Your task to perform on an android device: check storage Image 0: 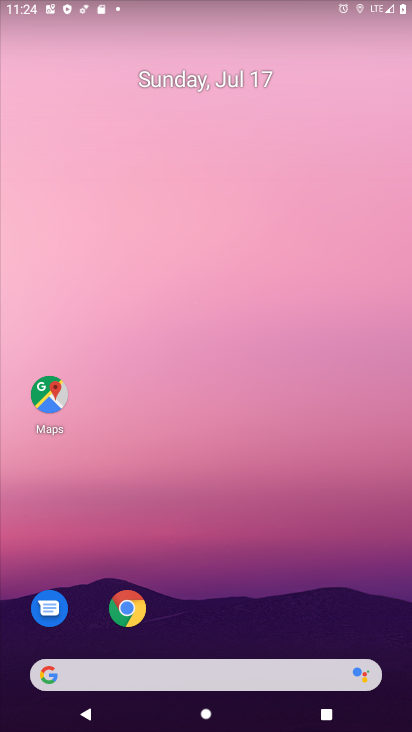
Step 0: drag from (227, 634) to (190, 33)
Your task to perform on an android device: check storage Image 1: 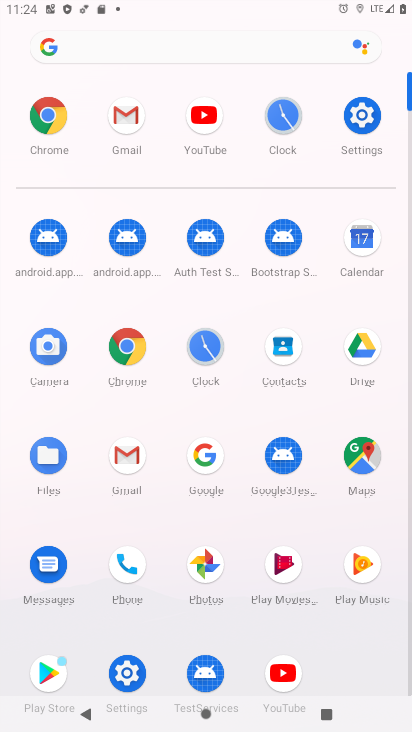
Step 1: click (118, 655)
Your task to perform on an android device: check storage Image 2: 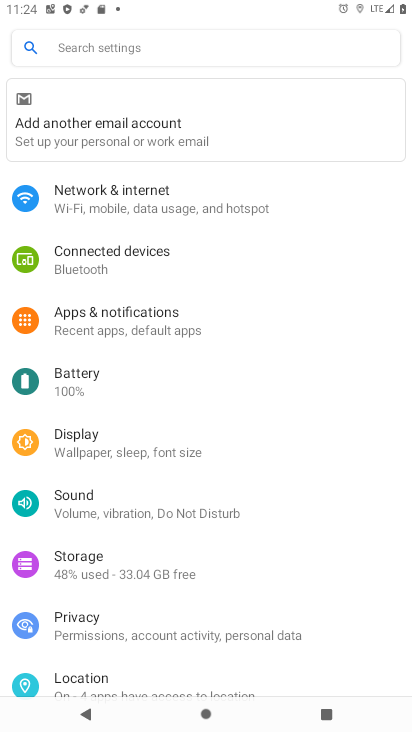
Step 2: drag from (124, 554) to (128, 190)
Your task to perform on an android device: check storage Image 3: 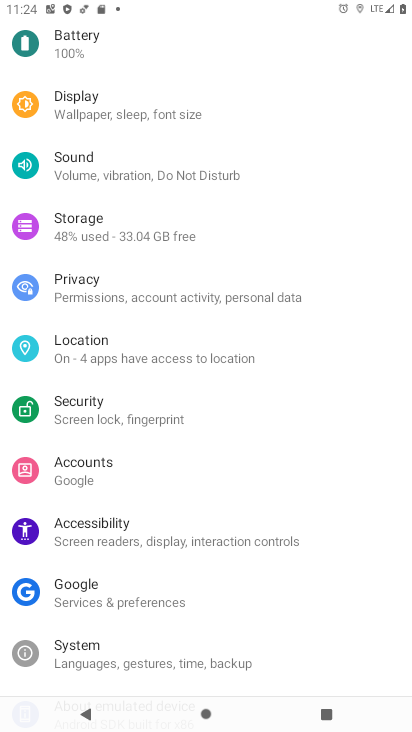
Step 3: click (89, 221)
Your task to perform on an android device: check storage Image 4: 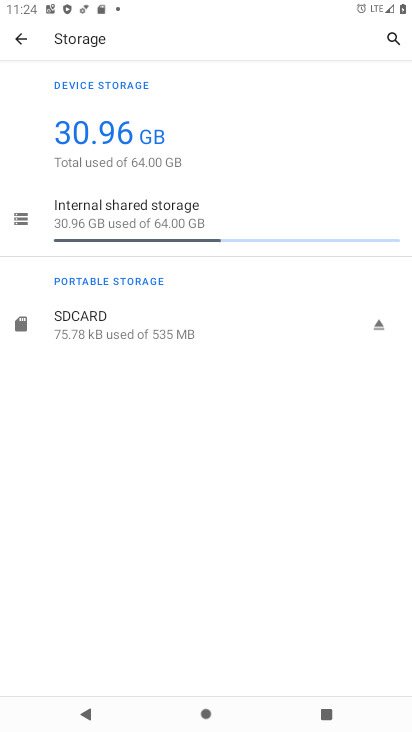
Step 4: click (88, 221)
Your task to perform on an android device: check storage Image 5: 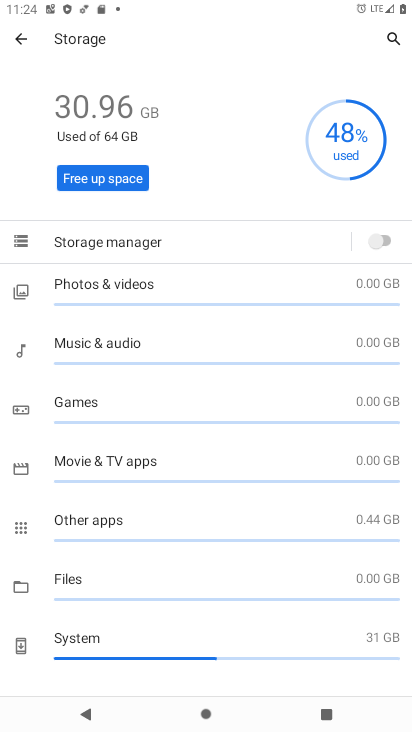
Step 5: task complete